Your task to perform on an android device: move a message to another label in the gmail app Image 0: 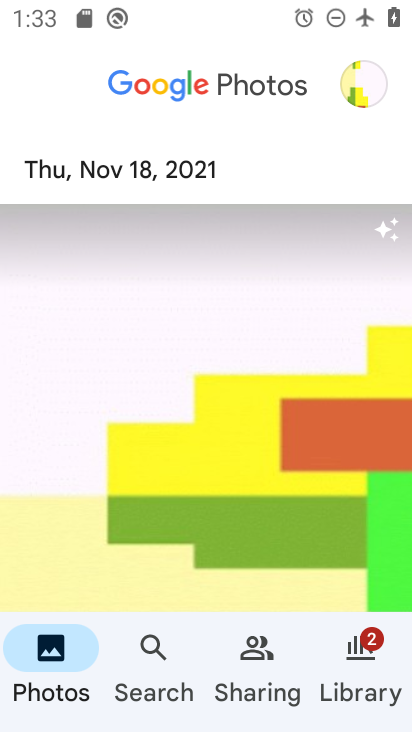
Step 0: press home button
Your task to perform on an android device: move a message to another label in the gmail app Image 1: 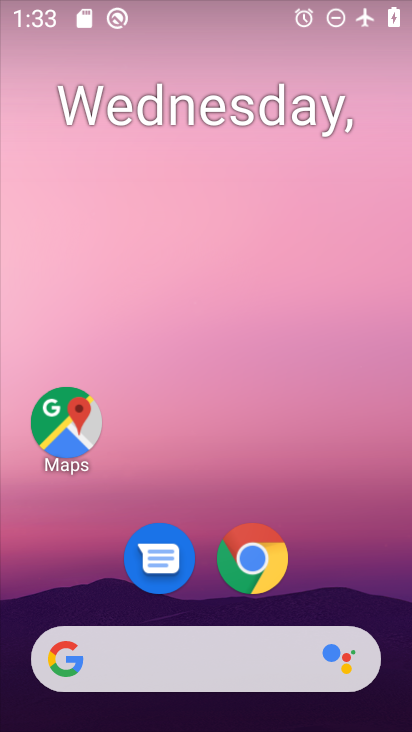
Step 1: drag from (395, 620) to (299, 91)
Your task to perform on an android device: move a message to another label in the gmail app Image 2: 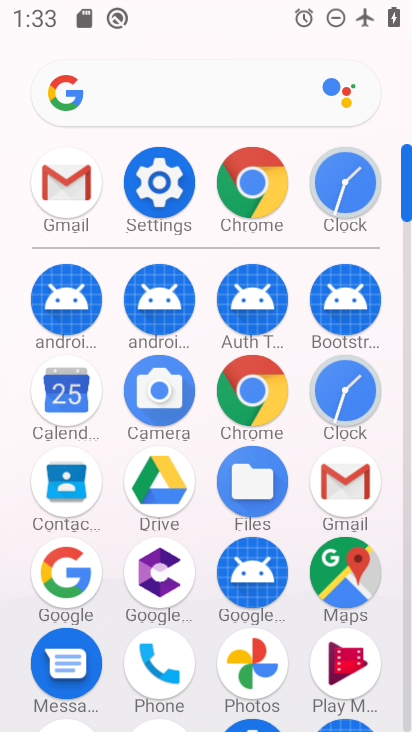
Step 2: click (327, 488)
Your task to perform on an android device: move a message to another label in the gmail app Image 3: 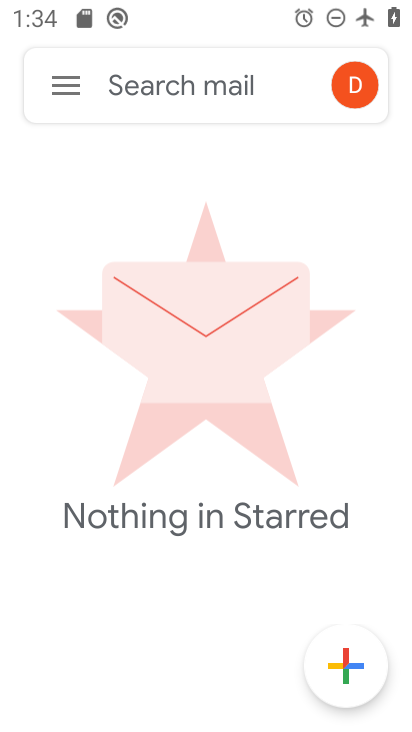
Step 3: task complete